Your task to perform on an android device: Open notification settings Image 0: 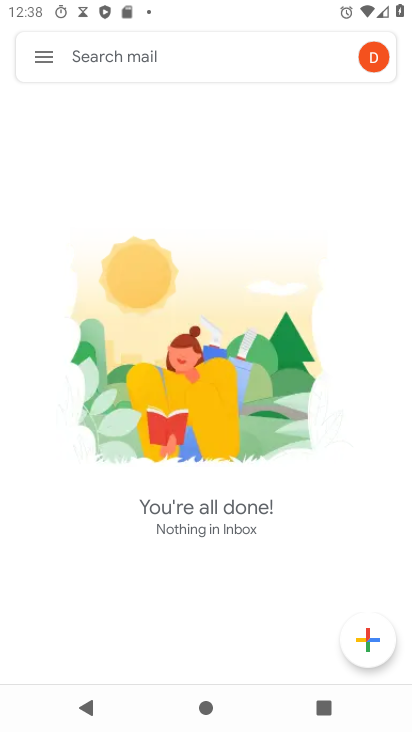
Step 0: press home button
Your task to perform on an android device: Open notification settings Image 1: 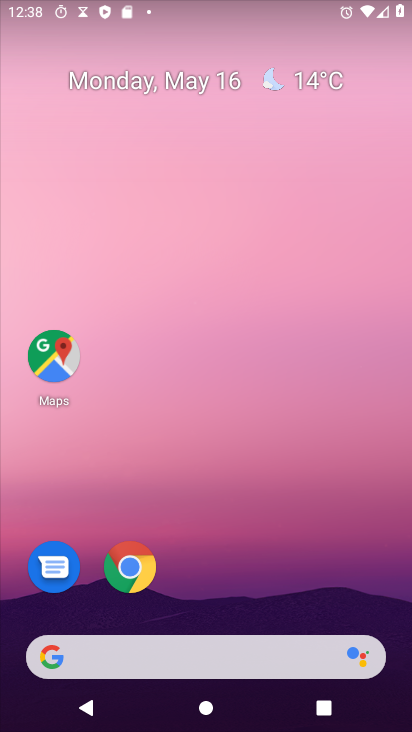
Step 1: drag from (277, 618) to (276, 60)
Your task to perform on an android device: Open notification settings Image 2: 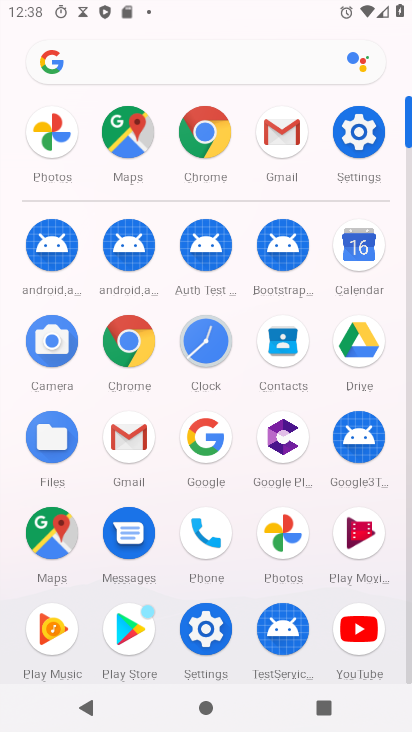
Step 2: click (201, 634)
Your task to perform on an android device: Open notification settings Image 3: 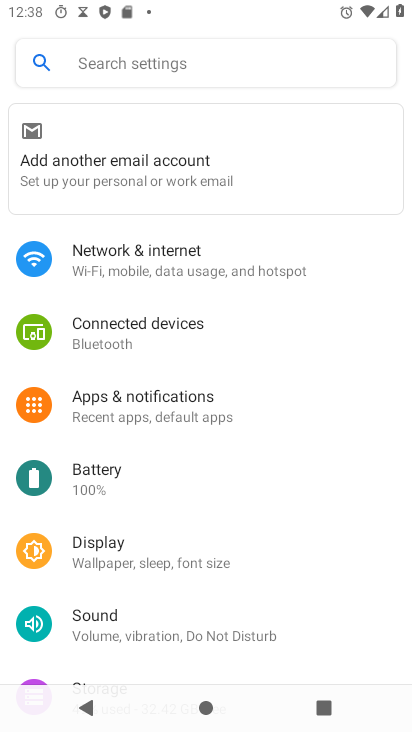
Step 3: click (152, 407)
Your task to perform on an android device: Open notification settings Image 4: 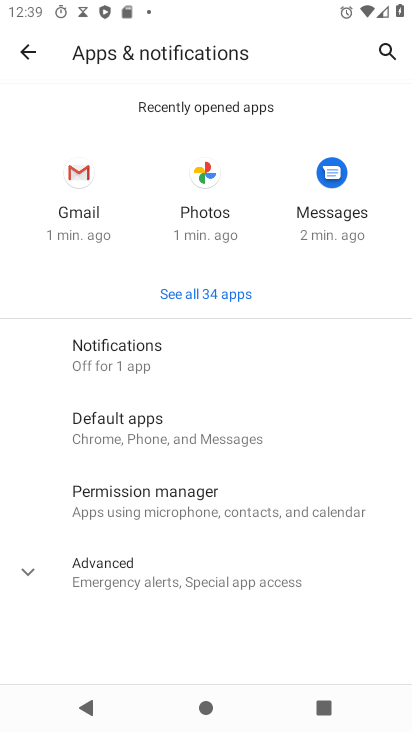
Step 4: click (179, 341)
Your task to perform on an android device: Open notification settings Image 5: 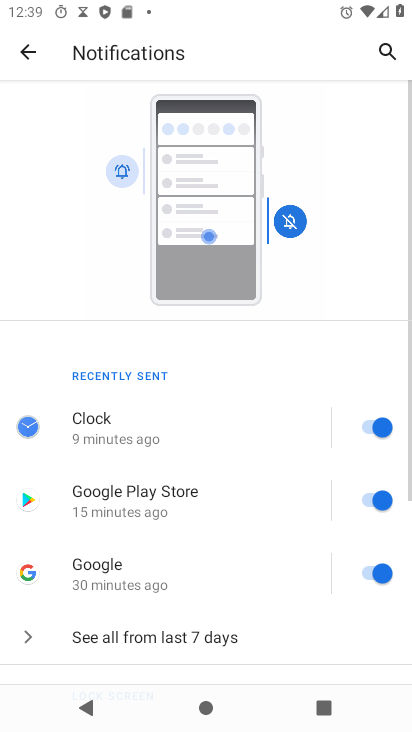
Step 5: task complete